Your task to perform on an android device: Search for Mexican restaurants on Maps Image 0: 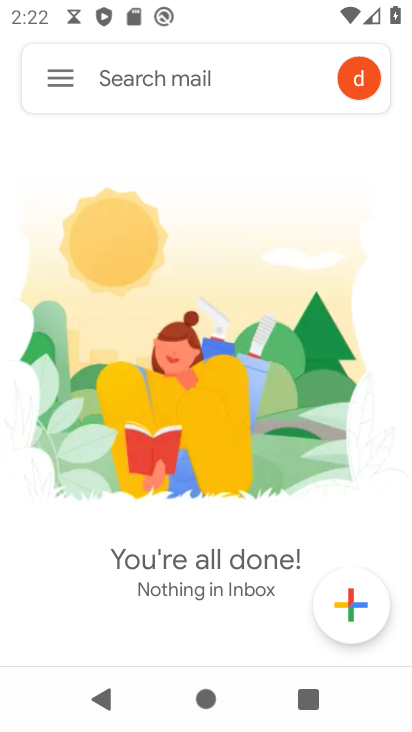
Step 0: press home button
Your task to perform on an android device: Search for Mexican restaurants on Maps Image 1: 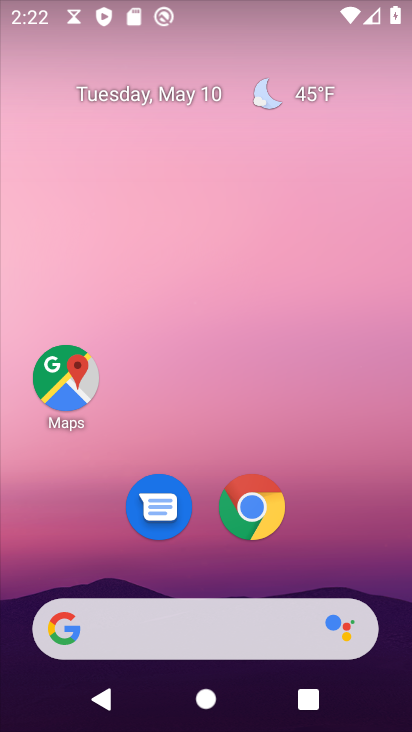
Step 1: click (49, 381)
Your task to perform on an android device: Search for Mexican restaurants on Maps Image 2: 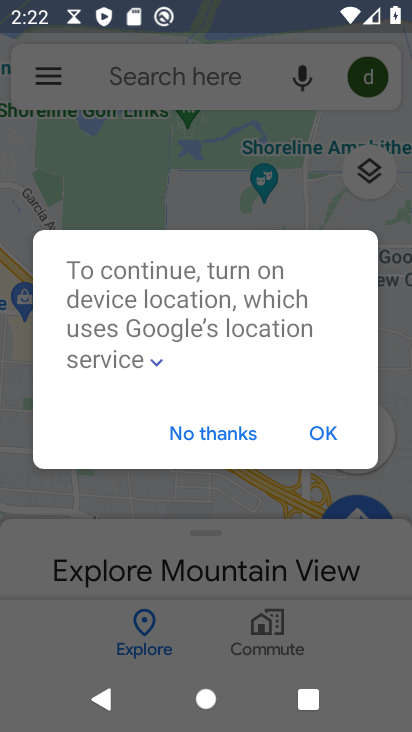
Step 2: click (160, 73)
Your task to perform on an android device: Search for Mexican restaurants on Maps Image 3: 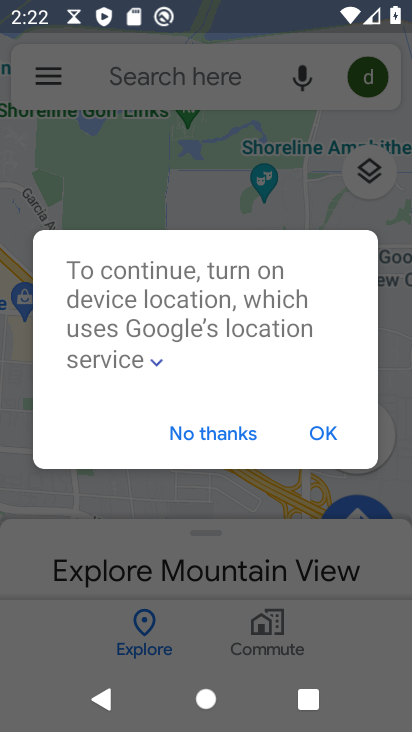
Step 3: click (330, 442)
Your task to perform on an android device: Search for Mexican restaurants on Maps Image 4: 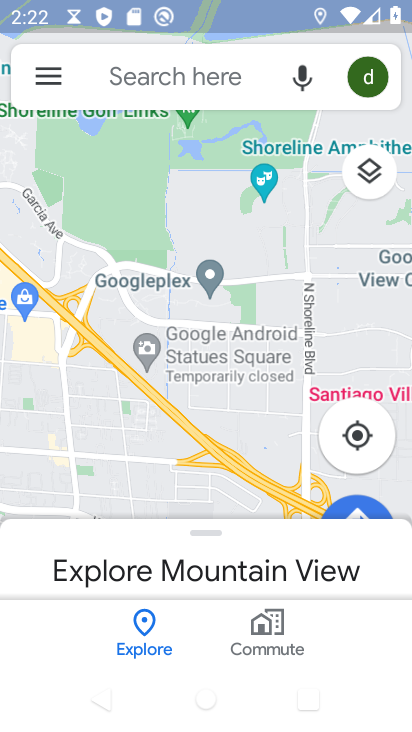
Step 4: click (209, 83)
Your task to perform on an android device: Search for Mexican restaurants on Maps Image 5: 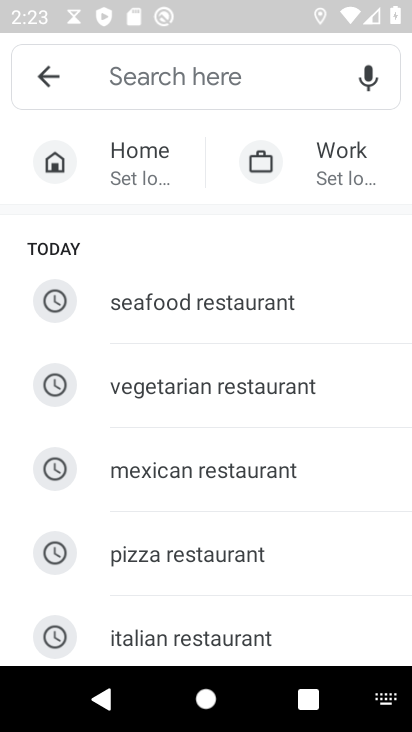
Step 5: click (164, 473)
Your task to perform on an android device: Search for Mexican restaurants on Maps Image 6: 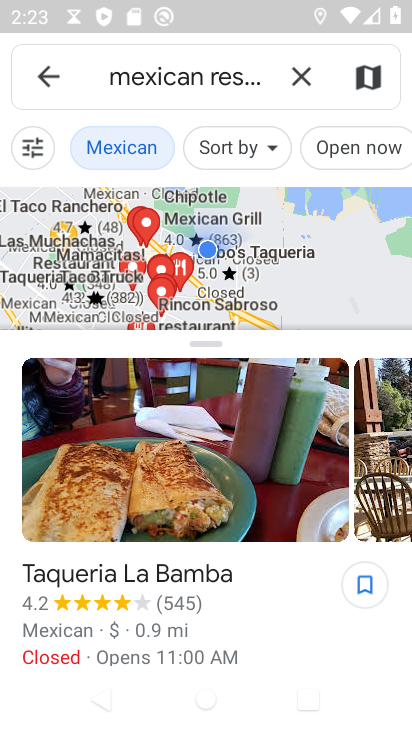
Step 6: task complete